Your task to perform on an android device: Go to battery settings Image 0: 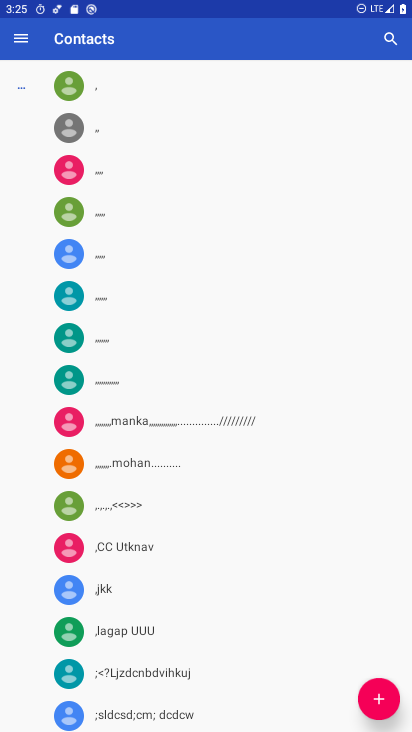
Step 0: press home button
Your task to perform on an android device: Go to battery settings Image 1: 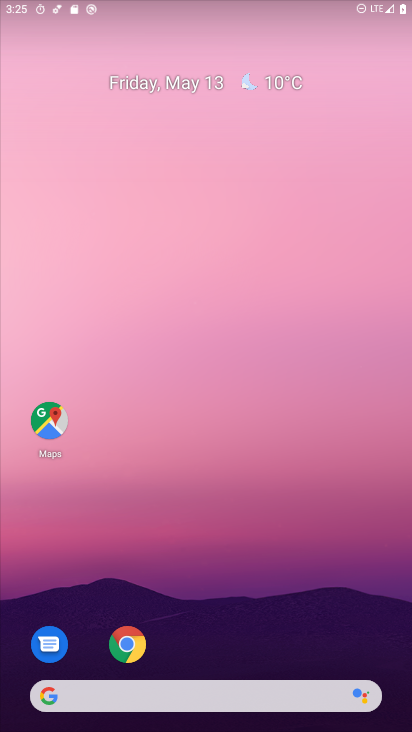
Step 1: drag from (246, 652) to (358, 113)
Your task to perform on an android device: Go to battery settings Image 2: 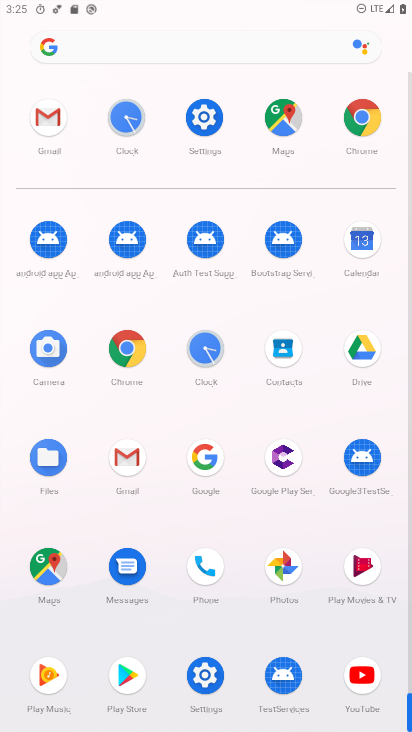
Step 2: click (203, 111)
Your task to perform on an android device: Go to battery settings Image 3: 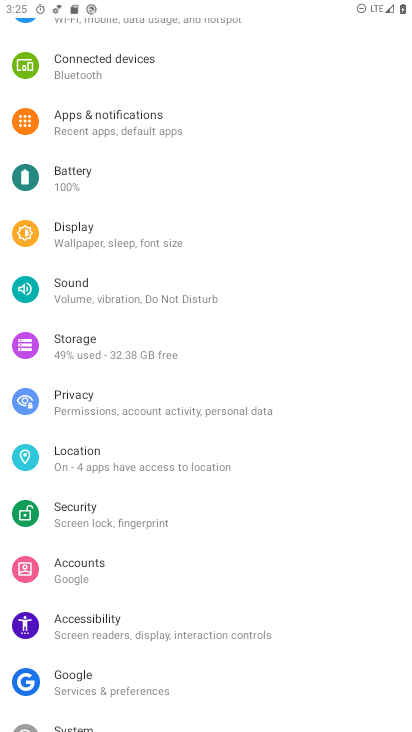
Step 3: click (110, 183)
Your task to perform on an android device: Go to battery settings Image 4: 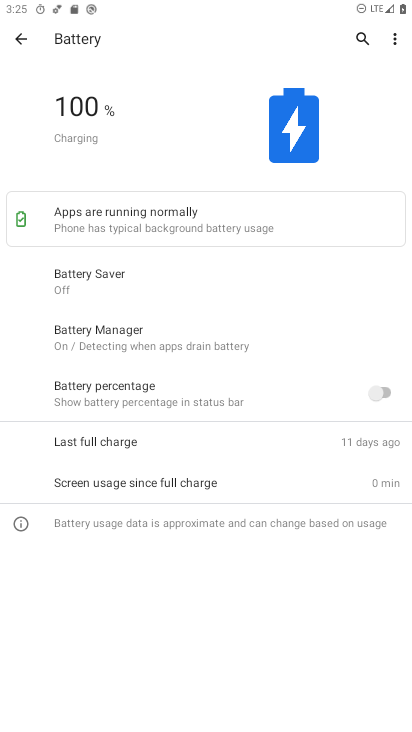
Step 4: task complete